Your task to perform on an android device: Open maps Image 0: 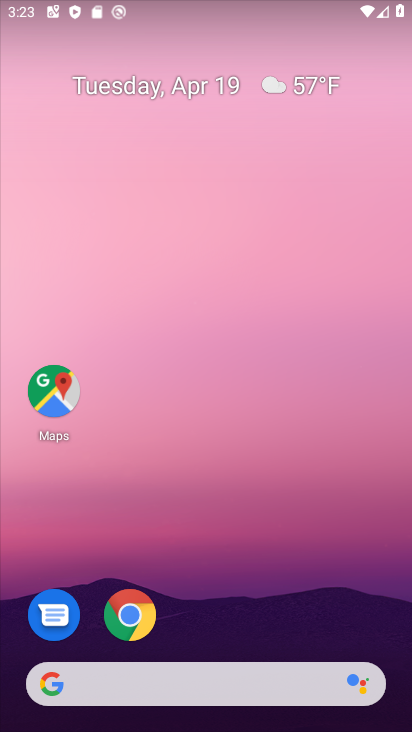
Step 0: click (51, 389)
Your task to perform on an android device: Open maps Image 1: 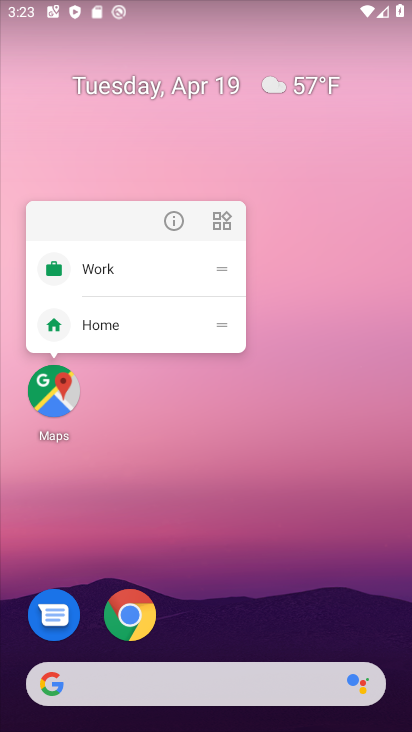
Step 1: click (51, 389)
Your task to perform on an android device: Open maps Image 2: 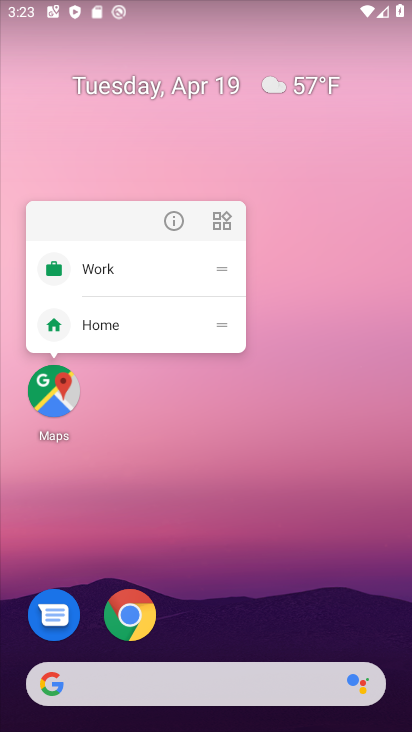
Step 2: click (51, 389)
Your task to perform on an android device: Open maps Image 3: 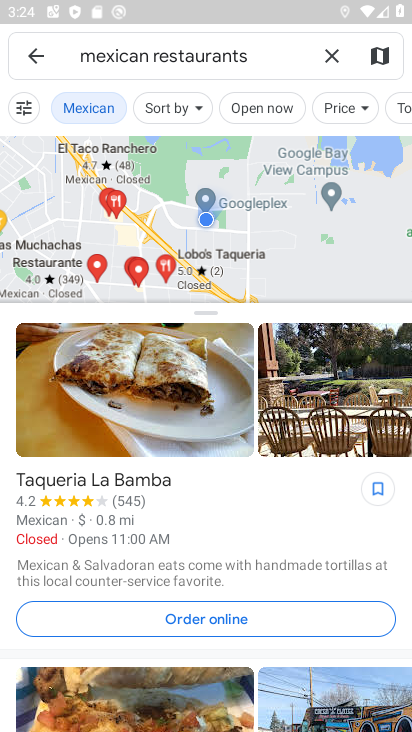
Step 3: task complete